Your task to perform on an android device: Open Google Chrome Image 0: 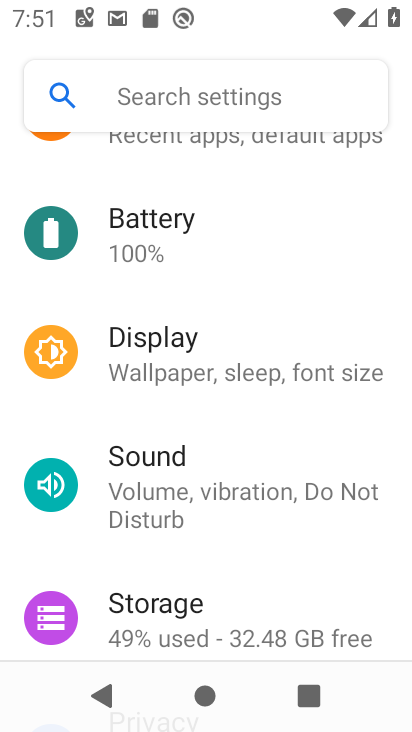
Step 0: press home button
Your task to perform on an android device: Open Google Chrome Image 1: 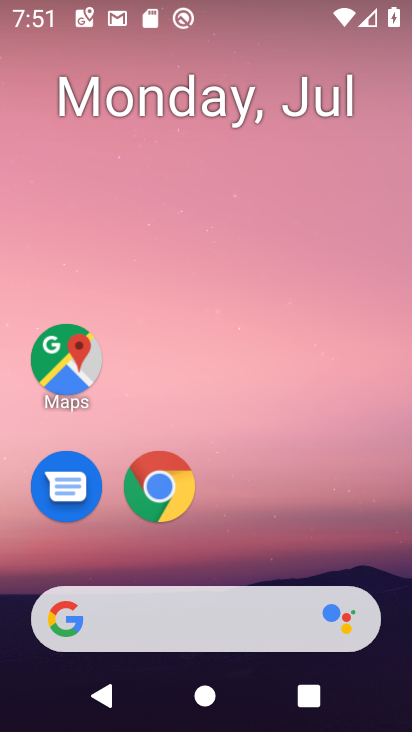
Step 1: drag from (372, 541) to (380, 151)
Your task to perform on an android device: Open Google Chrome Image 2: 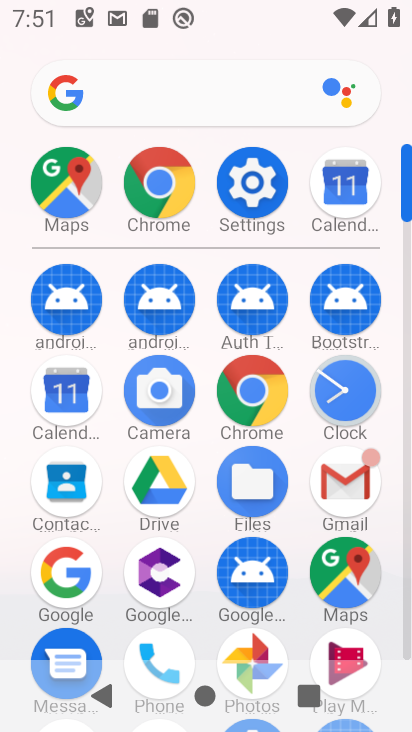
Step 2: click (247, 399)
Your task to perform on an android device: Open Google Chrome Image 3: 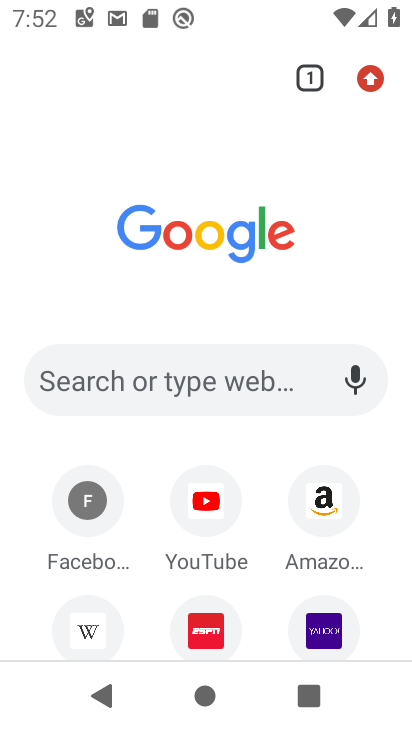
Step 3: task complete